Your task to perform on an android device: make emails show in primary in the gmail app Image 0: 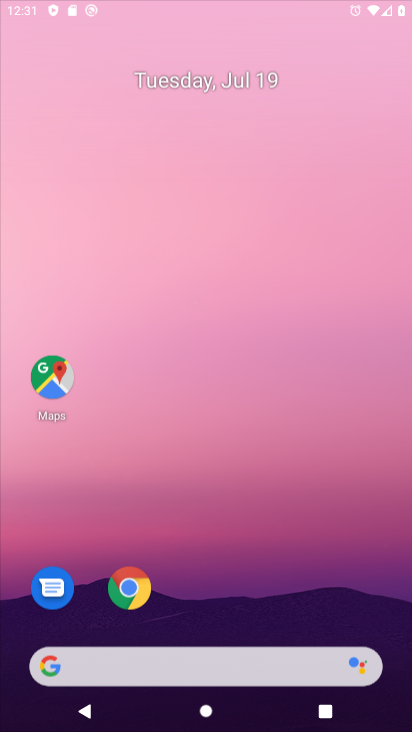
Step 0: drag from (232, 650) to (187, 247)
Your task to perform on an android device: make emails show in primary in the gmail app Image 1: 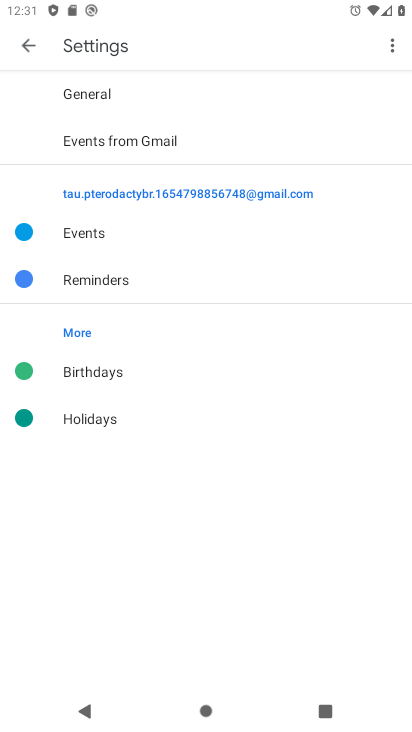
Step 1: press home button
Your task to perform on an android device: make emails show in primary in the gmail app Image 2: 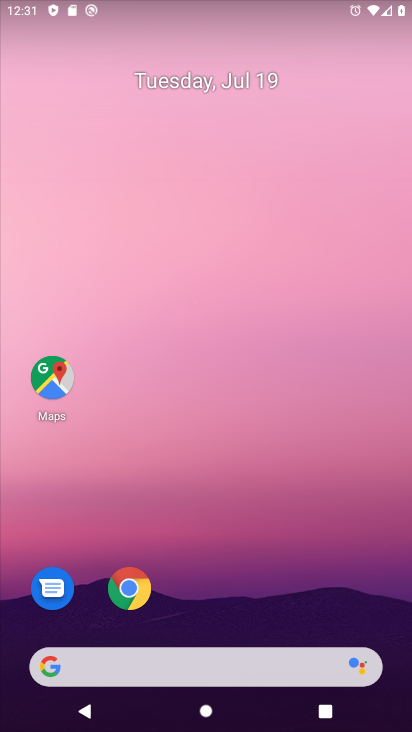
Step 2: drag from (141, 637) to (152, 229)
Your task to perform on an android device: make emails show in primary in the gmail app Image 3: 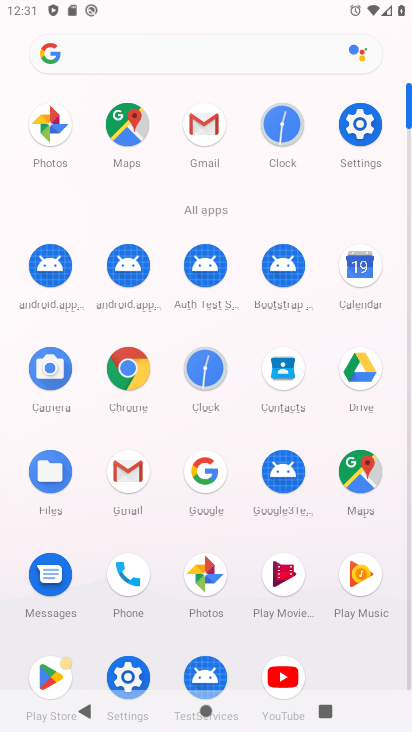
Step 3: click (204, 131)
Your task to perform on an android device: make emails show in primary in the gmail app Image 4: 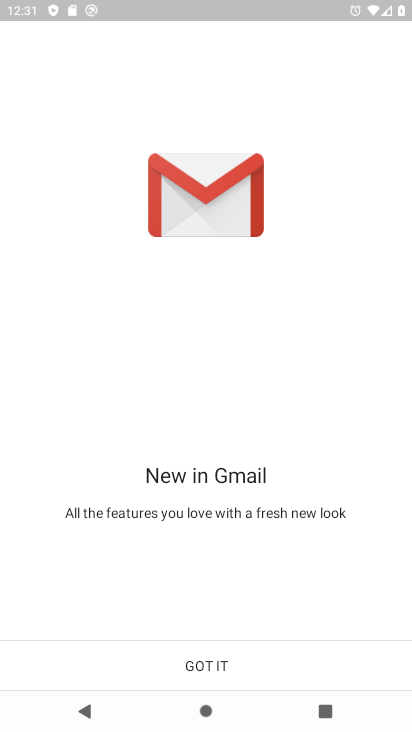
Step 4: click (186, 665)
Your task to perform on an android device: make emails show in primary in the gmail app Image 5: 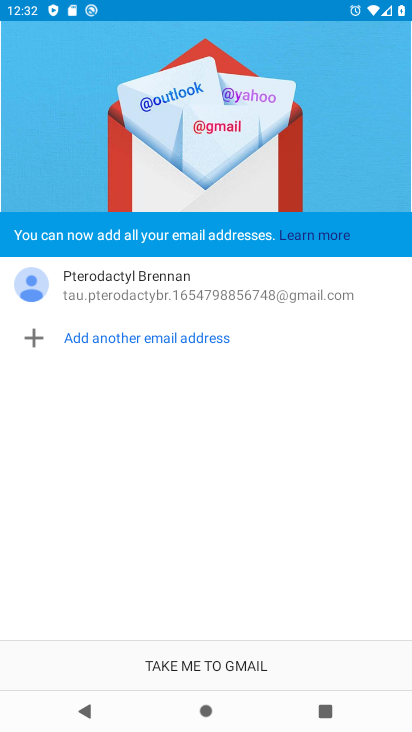
Step 5: click (177, 662)
Your task to perform on an android device: make emails show in primary in the gmail app Image 6: 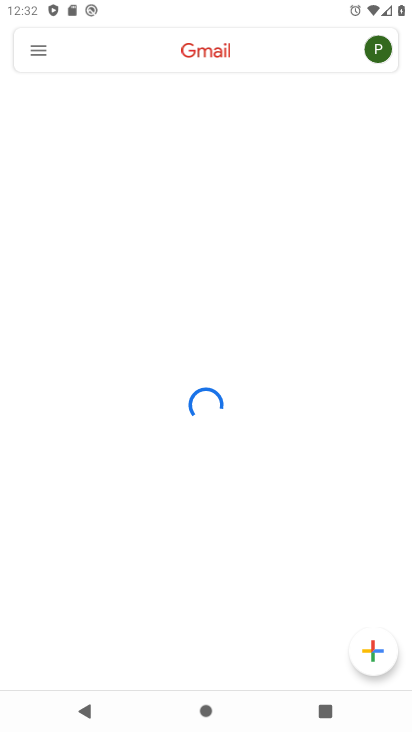
Step 6: click (41, 45)
Your task to perform on an android device: make emails show in primary in the gmail app Image 7: 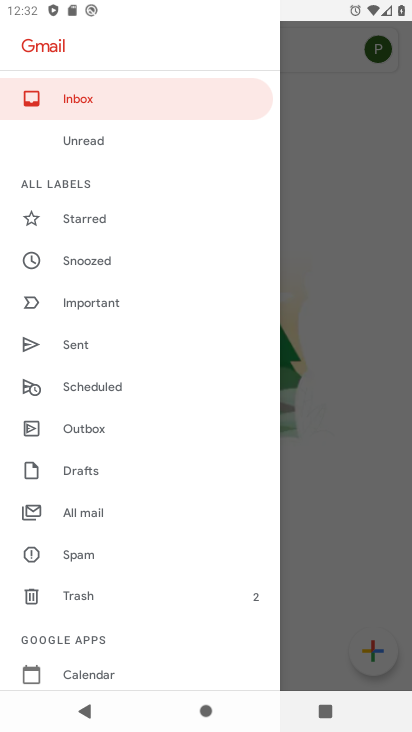
Step 7: drag from (91, 653) to (114, 258)
Your task to perform on an android device: make emails show in primary in the gmail app Image 8: 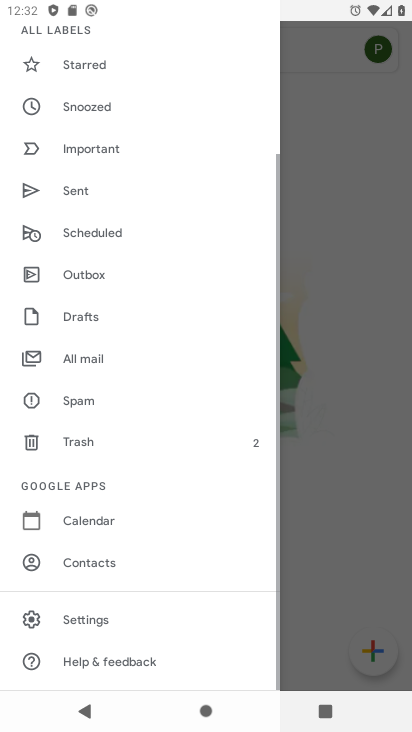
Step 8: click (77, 629)
Your task to perform on an android device: make emails show in primary in the gmail app Image 9: 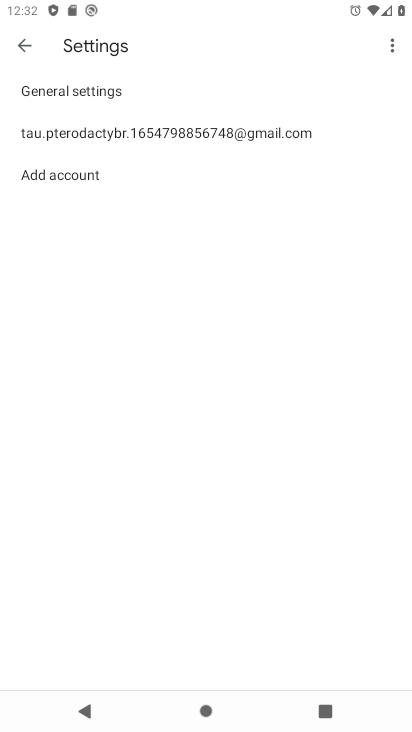
Step 9: click (82, 129)
Your task to perform on an android device: make emails show in primary in the gmail app Image 10: 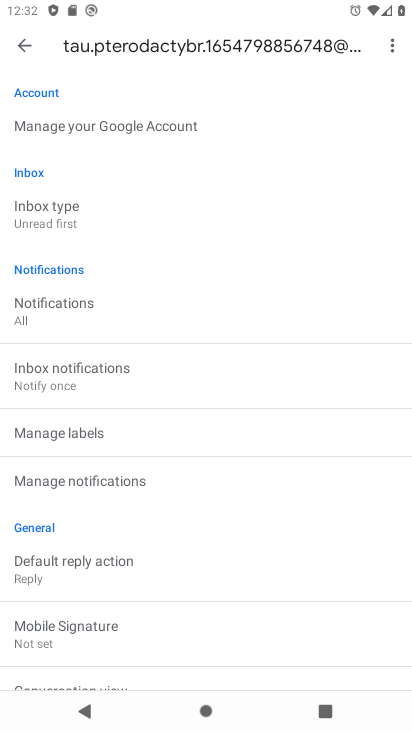
Step 10: click (36, 214)
Your task to perform on an android device: make emails show in primary in the gmail app Image 11: 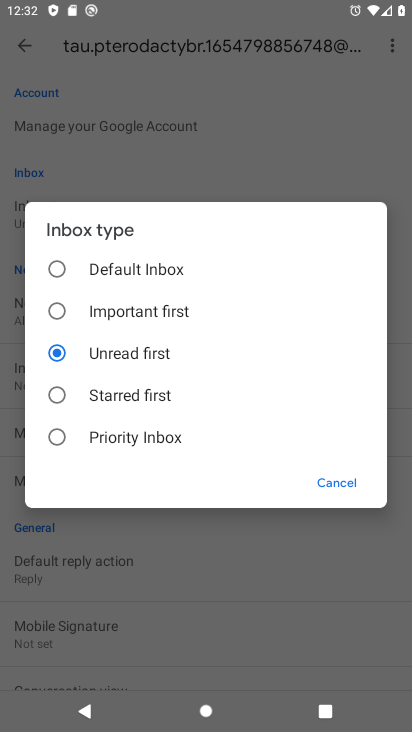
Step 11: click (109, 268)
Your task to perform on an android device: make emails show in primary in the gmail app Image 12: 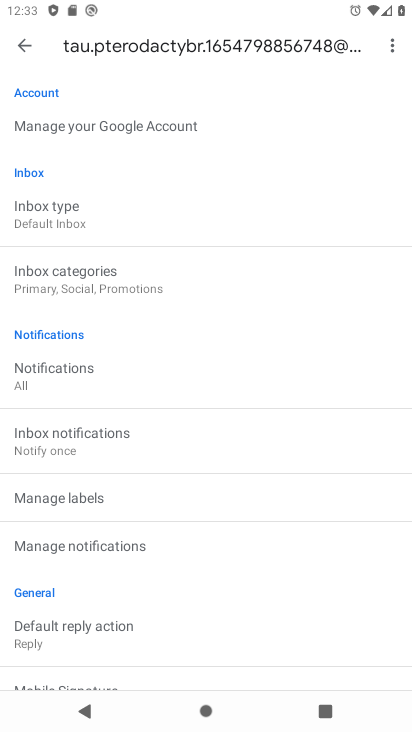
Step 12: click (50, 285)
Your task to perform on an android device: make emails show in primary in the gmail app Image 13: 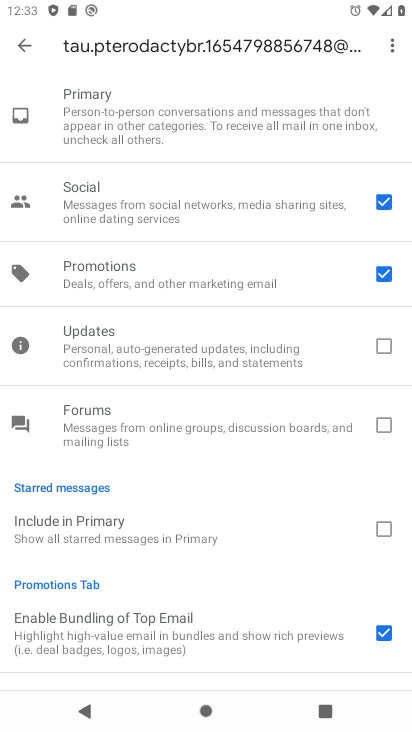
Step 13: click (381, 194)
Your task to perform on an android device: make emails show in primary in the gmail app Image 14: 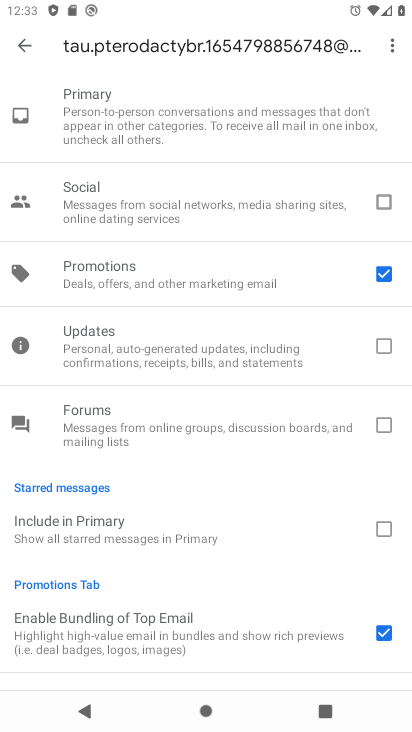
Step 14: click (381, 271)
Your task to perform on an android device: make emails show in primary in the gmail app Image 15: 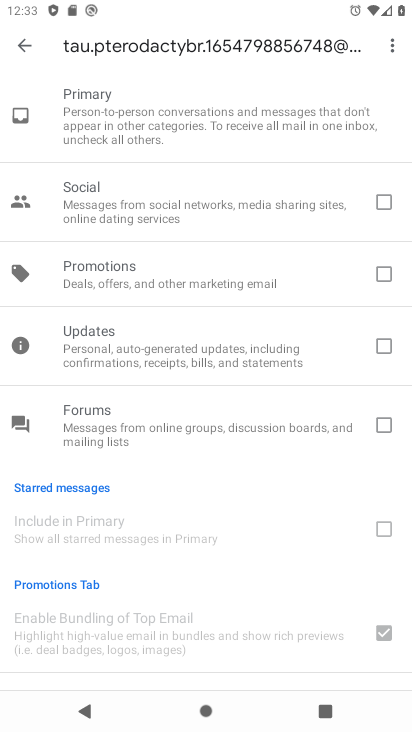
Step 15: click (23, 39)
Your task to perform on an android device: make emails show in primary in the gmail app Image 16: 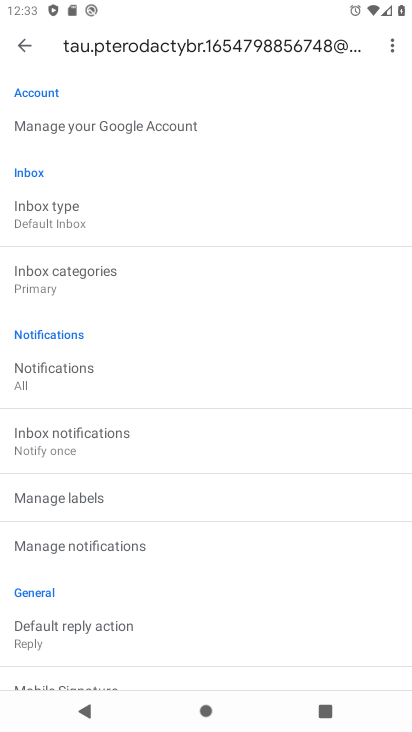
Step 16: task complete